Your task to perform on an android device: Open calendar and show me the first week of next month Image 0: 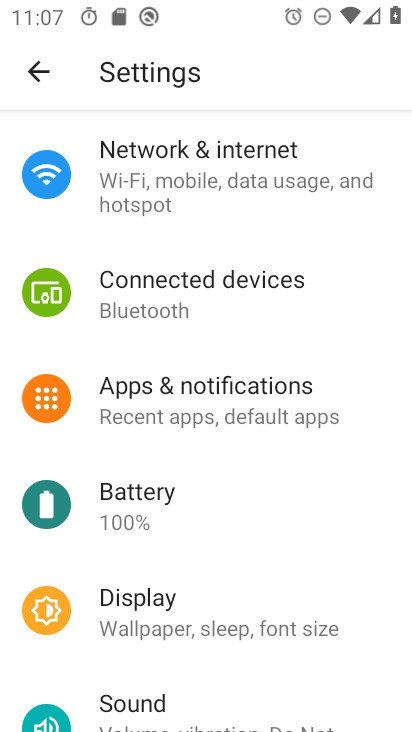
Step 0: press home button
Your task to perform on an android device: Open calendar and show me the first week of next month Image 1: 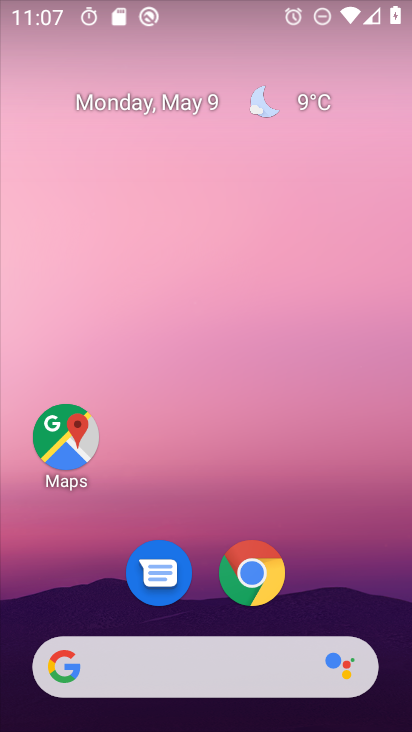
Step 1: drag from (320, 595) to (268, 132)
Your task to perform on an android device: Open calendar and show me the first week of next month Image 2: 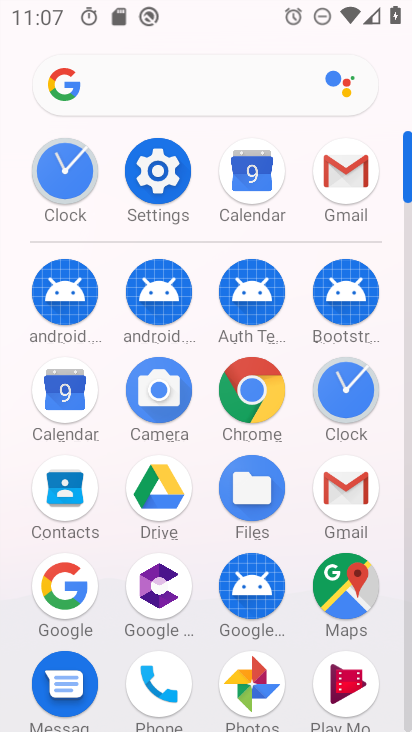
Step 2: click (65, 392)
Your task to perform on an android device: Open calendar and show me the first week of next month Image 3: 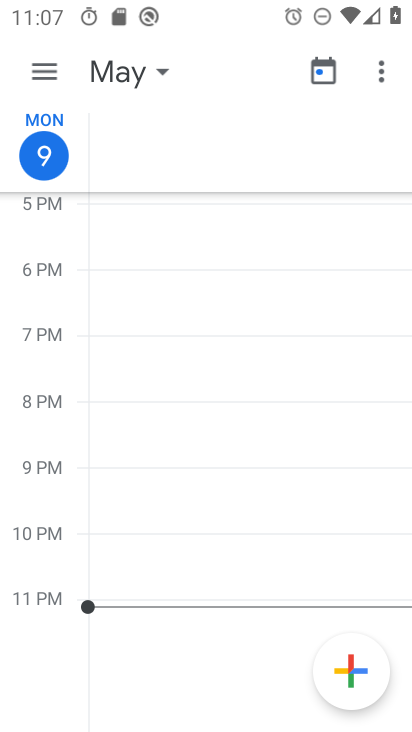
Step 3: click (41, 68)
Your task to perform on an android device: Open calendar and show me the first week of next month Image 4: 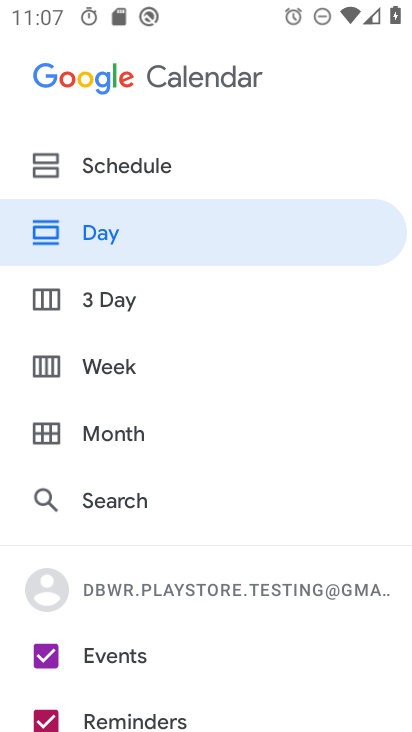
Step 4: click (129, 159)
Your task to perform on an android device: Open calendar and show me the first week of next month Image 5: 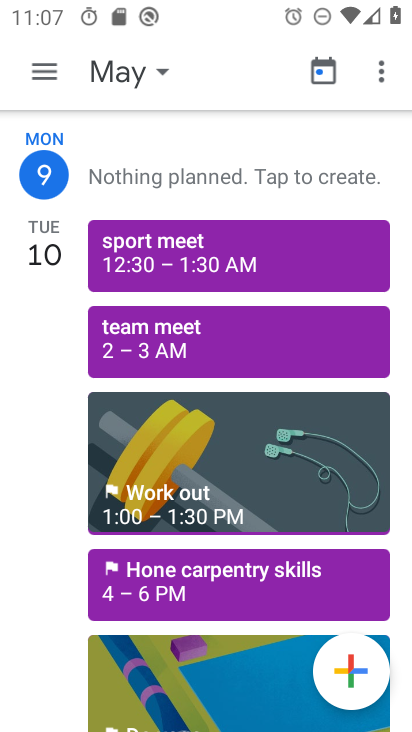
Step 5: click (116, 89)
Your task to perform on an android device: Open calendar and show me the first week of next month Image 6: 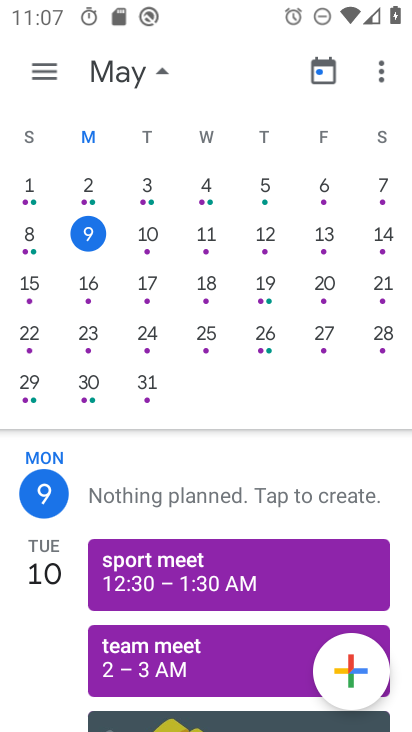
Step 6: drag from (361, 275) to (2, 288)
Your task to perform on an android device: Open calendar and show me the first week of next month Image 7: 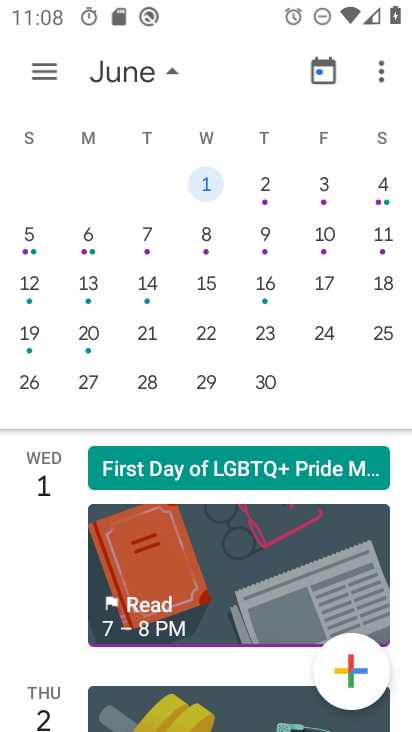
Step 7: click (325, 181)
Your task to perform on an android device: Open calendar and show me the first week of next month Image 8: 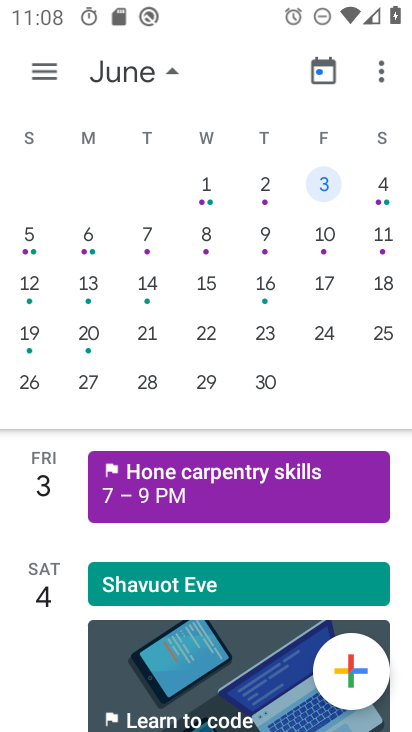
Step 8: task complete